Your task to perform on an android device: Open Chrome and go to settings Image 0: 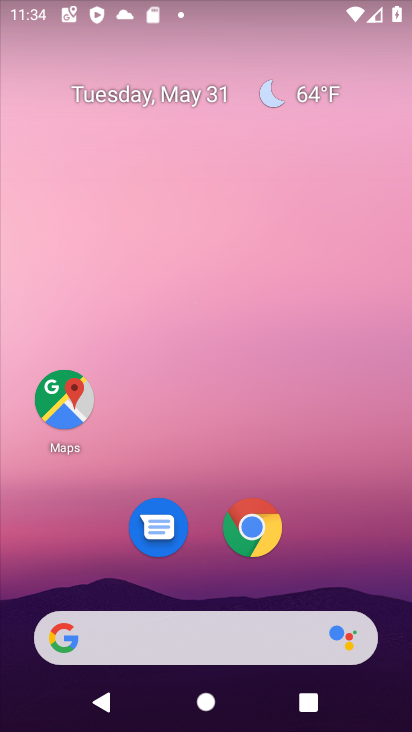
Step 0: click (238, 519)
Your task to perform on an android device: Open Chrome and go to settings Image 1: 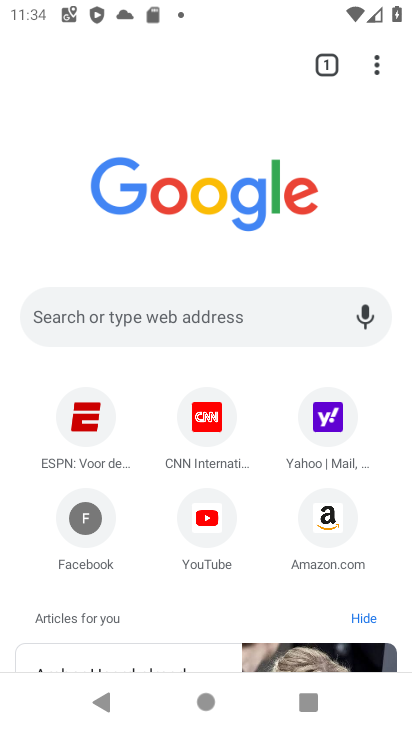
Step 1: click (381, 66)
Your task to perform on an android device: Open Chrome and go to settings Image 2: 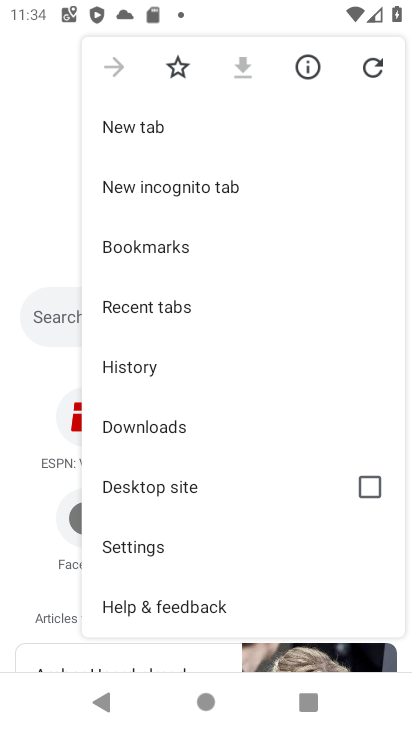
Step 2: click (209, 550)
Your task to perform on an android device: Open Chrome and go to settings Image 3: 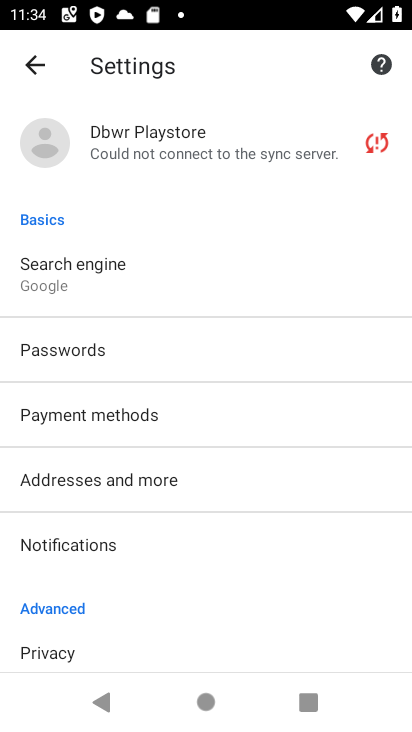
Step 3: task complete